Your task to perform on an android device: open app "Mercado Libre" Image 0: 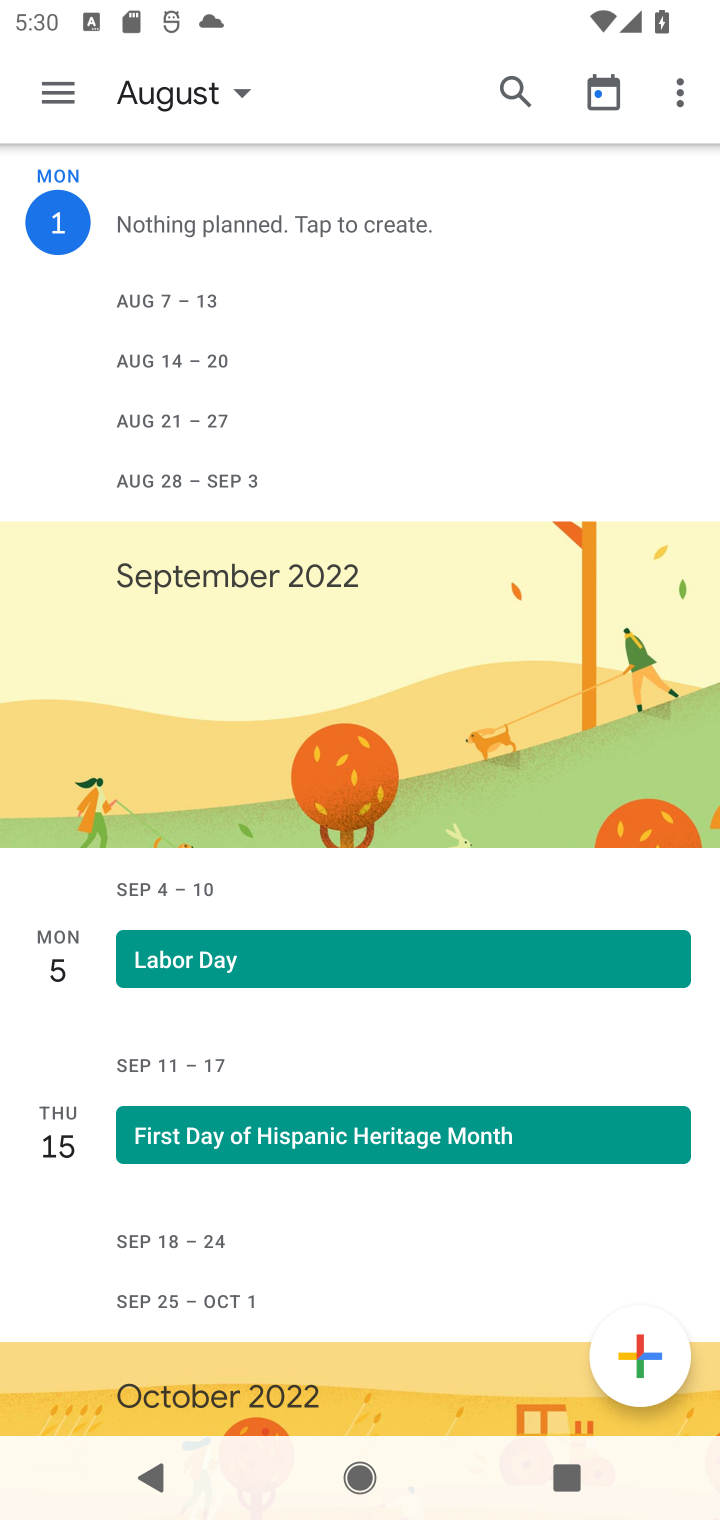
Step 0: press home button
Your task to perform on an android device: open app "Mercado Libre" Image 1: 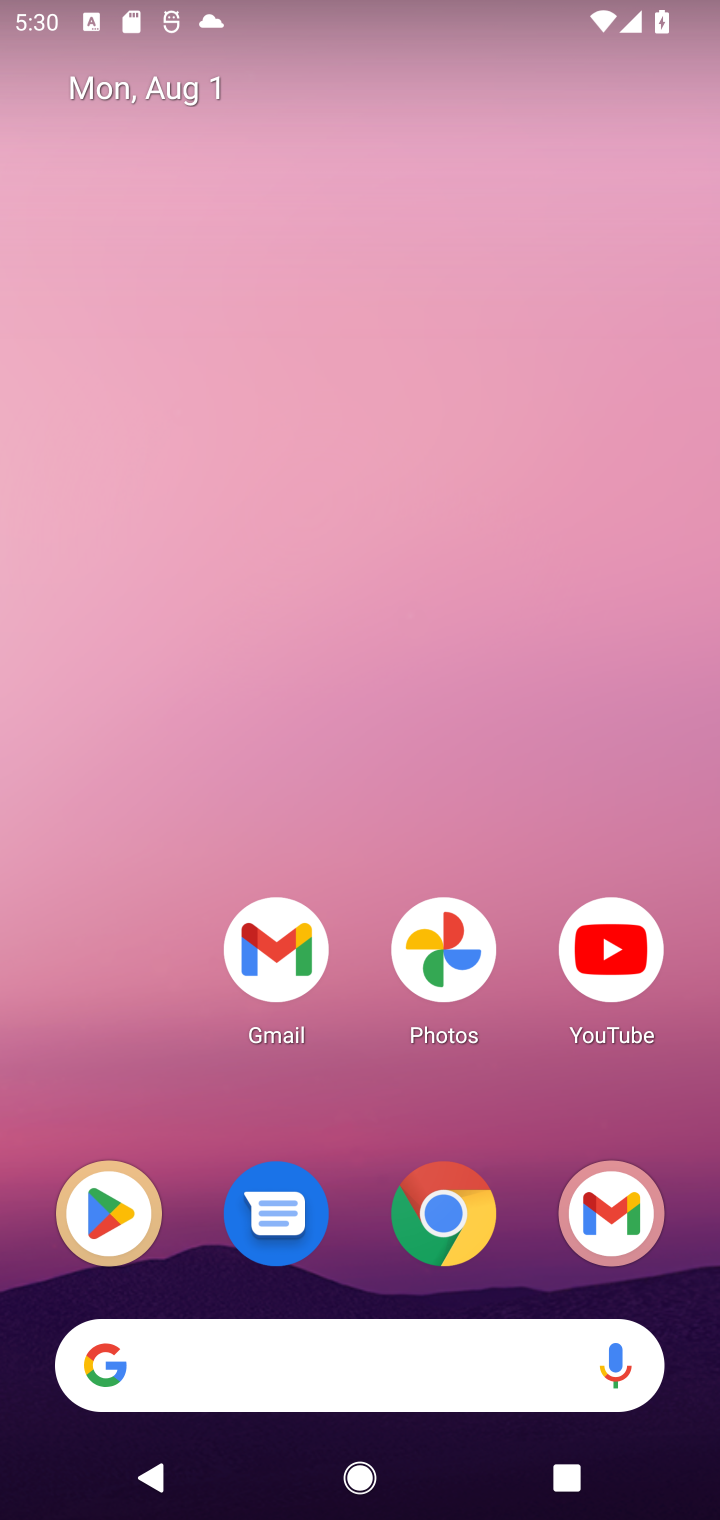
Step 1: drag from (516, 1125) to (565, 7)
Your task to perform on an android device: open app "Mercado Libre" Image 2: 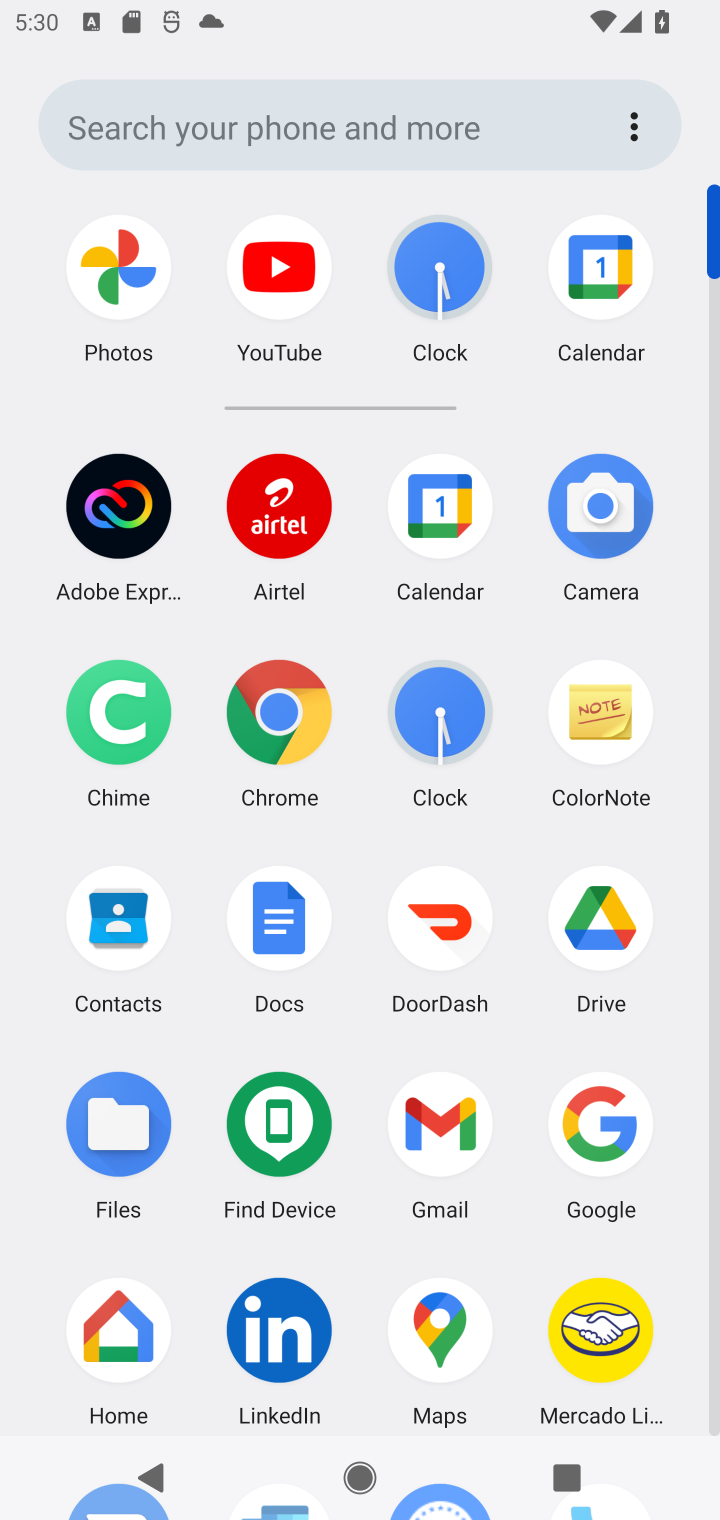
Step 2: drag from (514, 1220) to (607, 223)
Your task to perform on an android device: open app "Mercado Libre" Image 3: 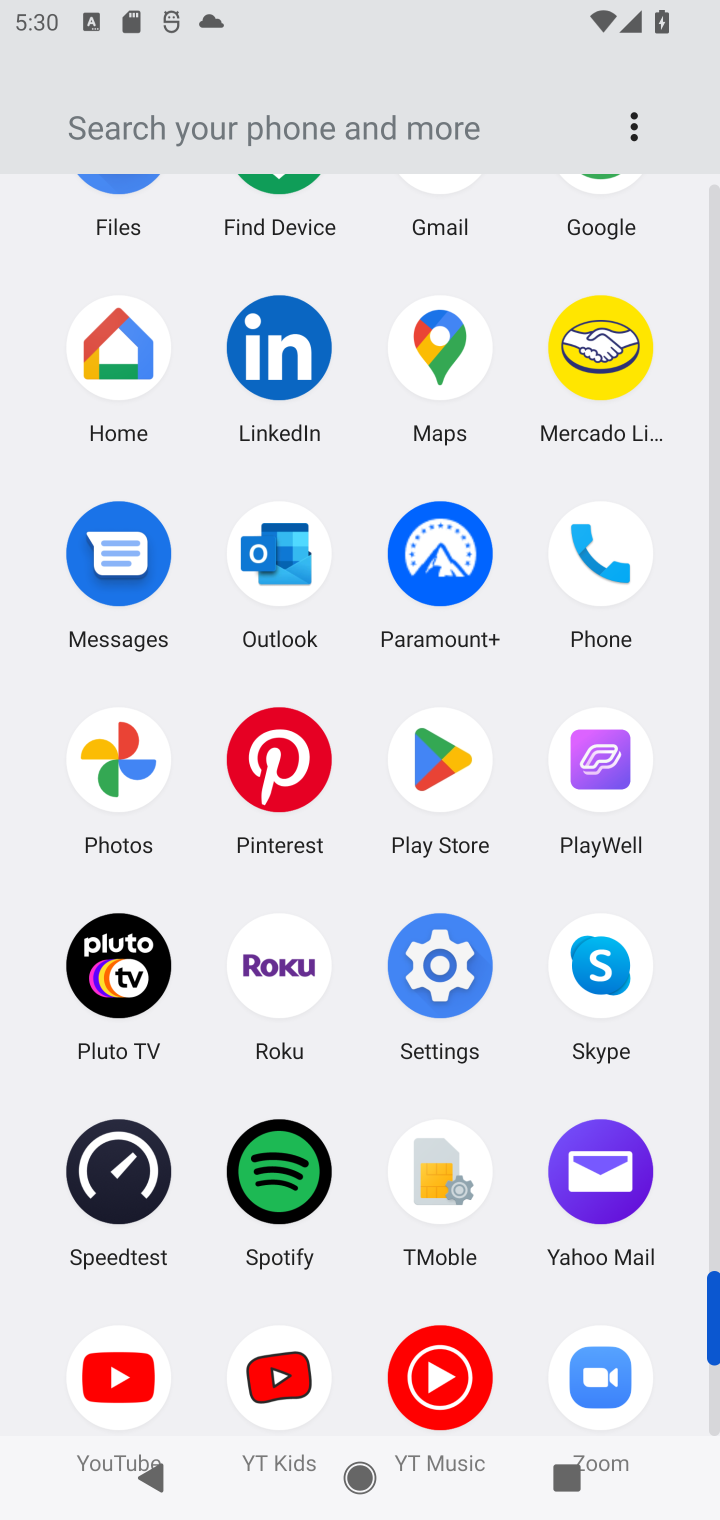
Step 3: click (454, 754)
Your task to perform on an android device: open app "Mercado Libre" Image 4: 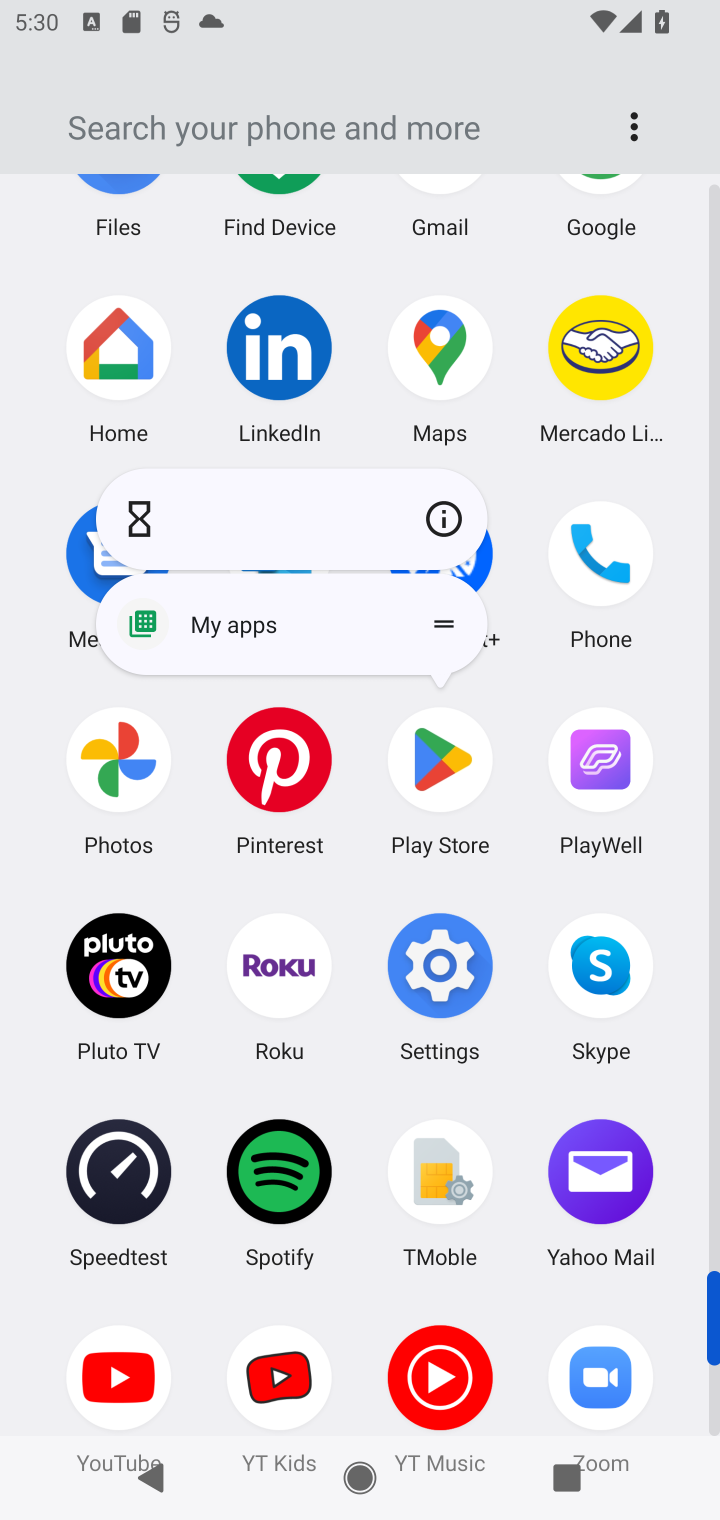
Step 4: click (447, 761)
Your task to perform on an android device: open app "Mercado Libre" Image 5: 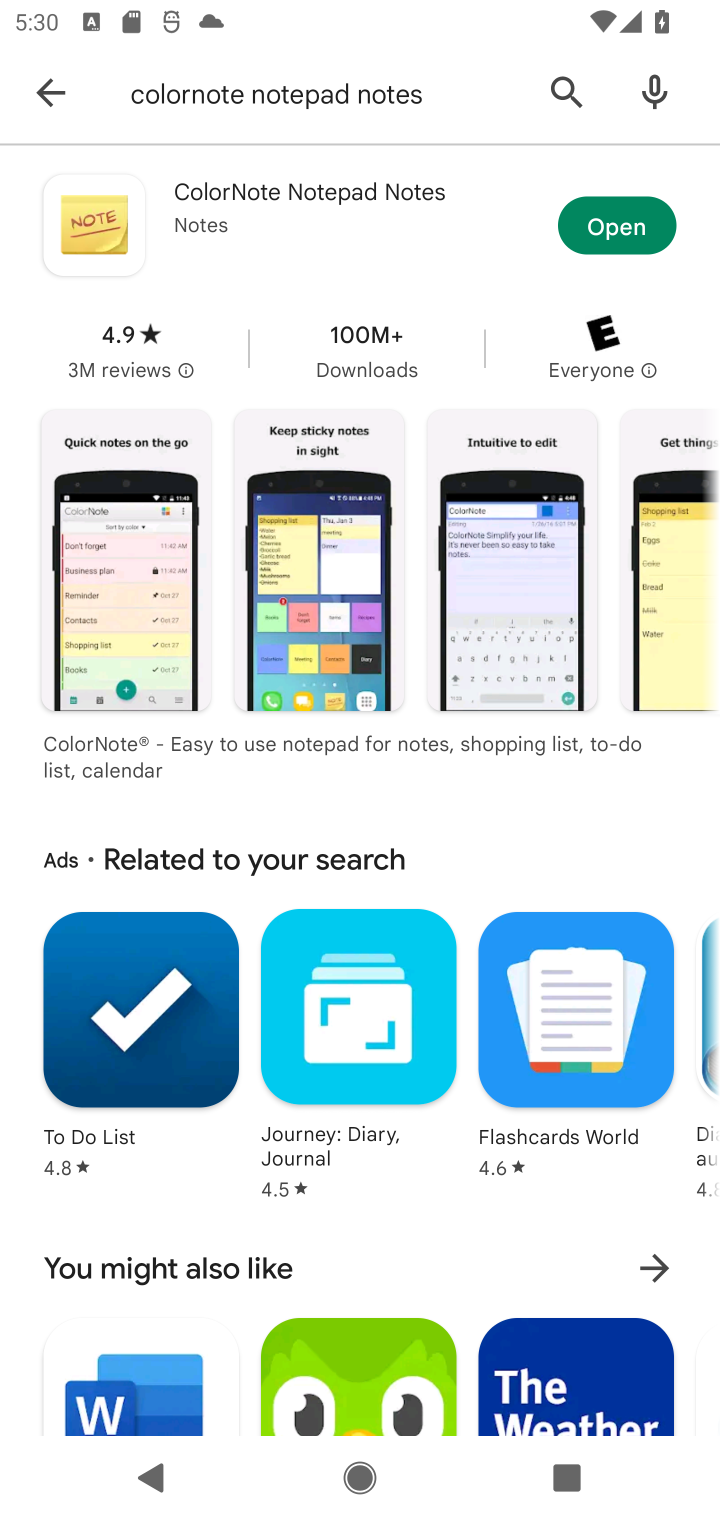
Step 5: click (467, 88)
Your task to perform on an android device: open app "Mercado Libre" Image 6: 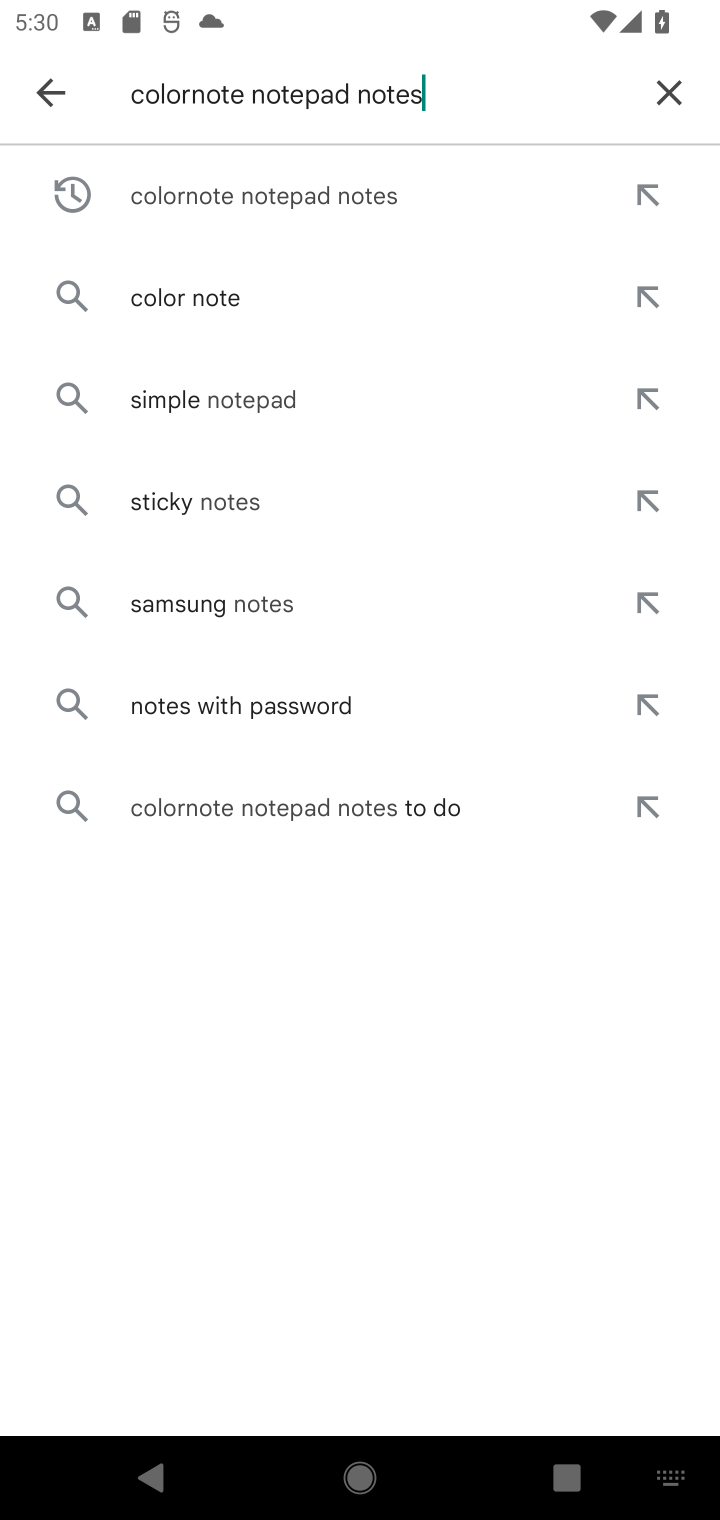
Step 6: click (679, 87)
Your task to perform on an android device: open app "Mercado Libre" Image 7: 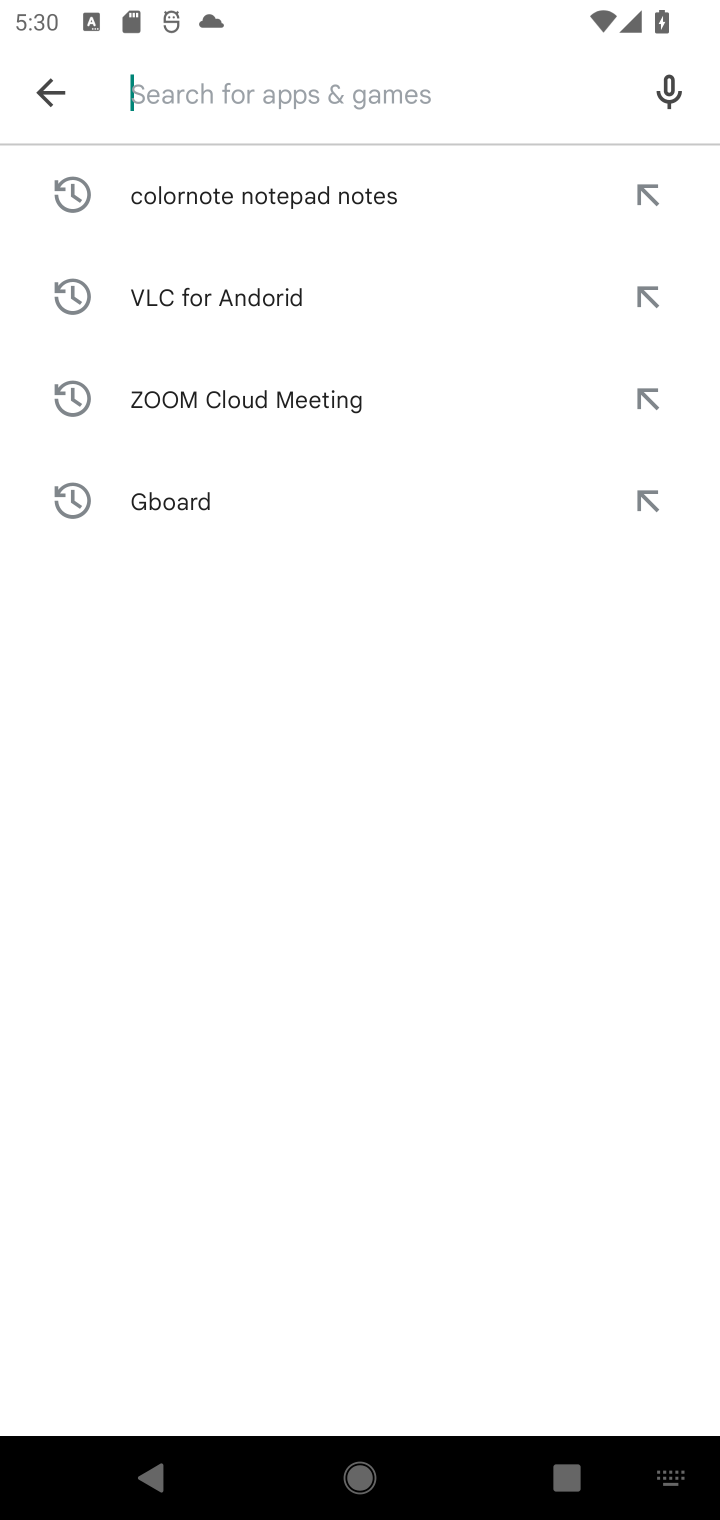
Step 7: type "Mercado Libre"
Your task to perform on an android device: open app "Mercado Libre" Image 8: 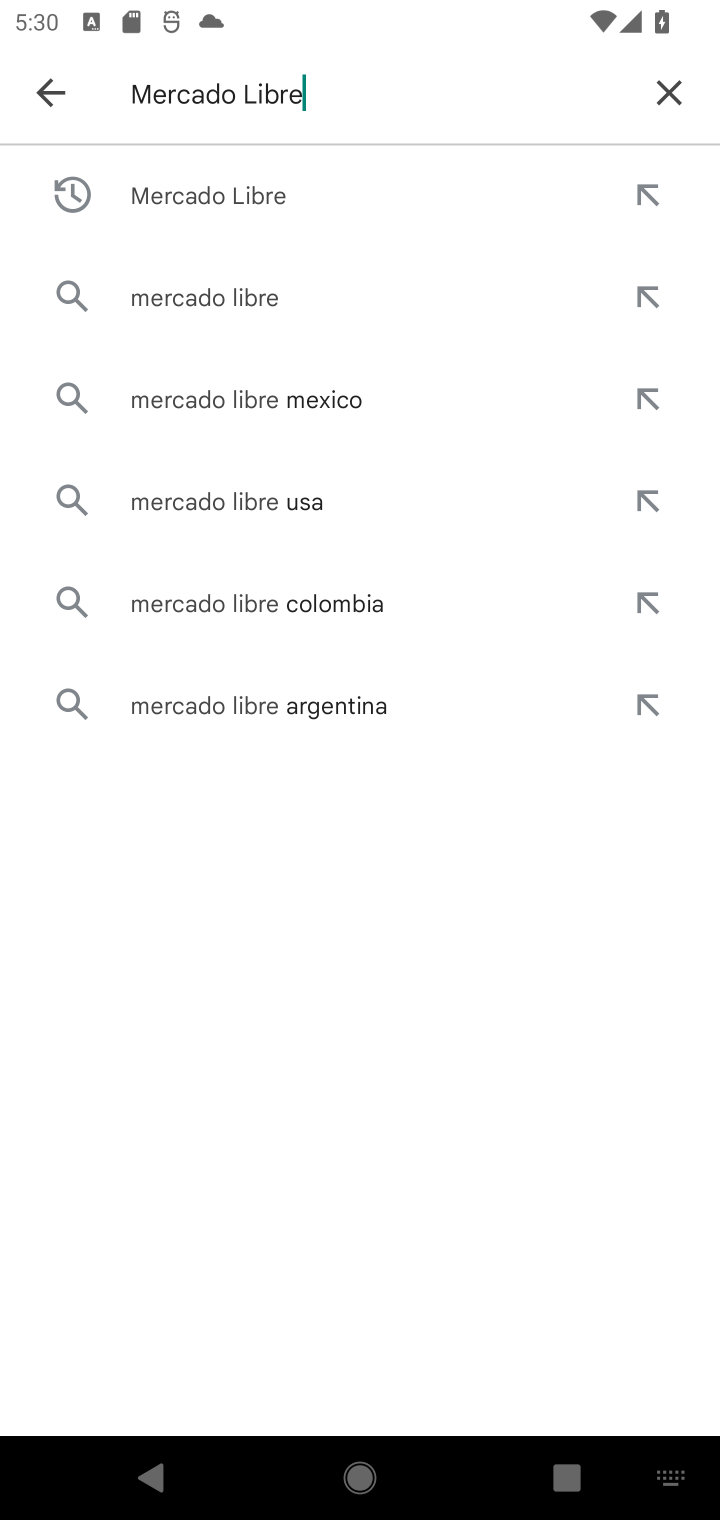
Step 8: press enter
Your task to perform on an android device: open app "Mercado Libre" Image 9: 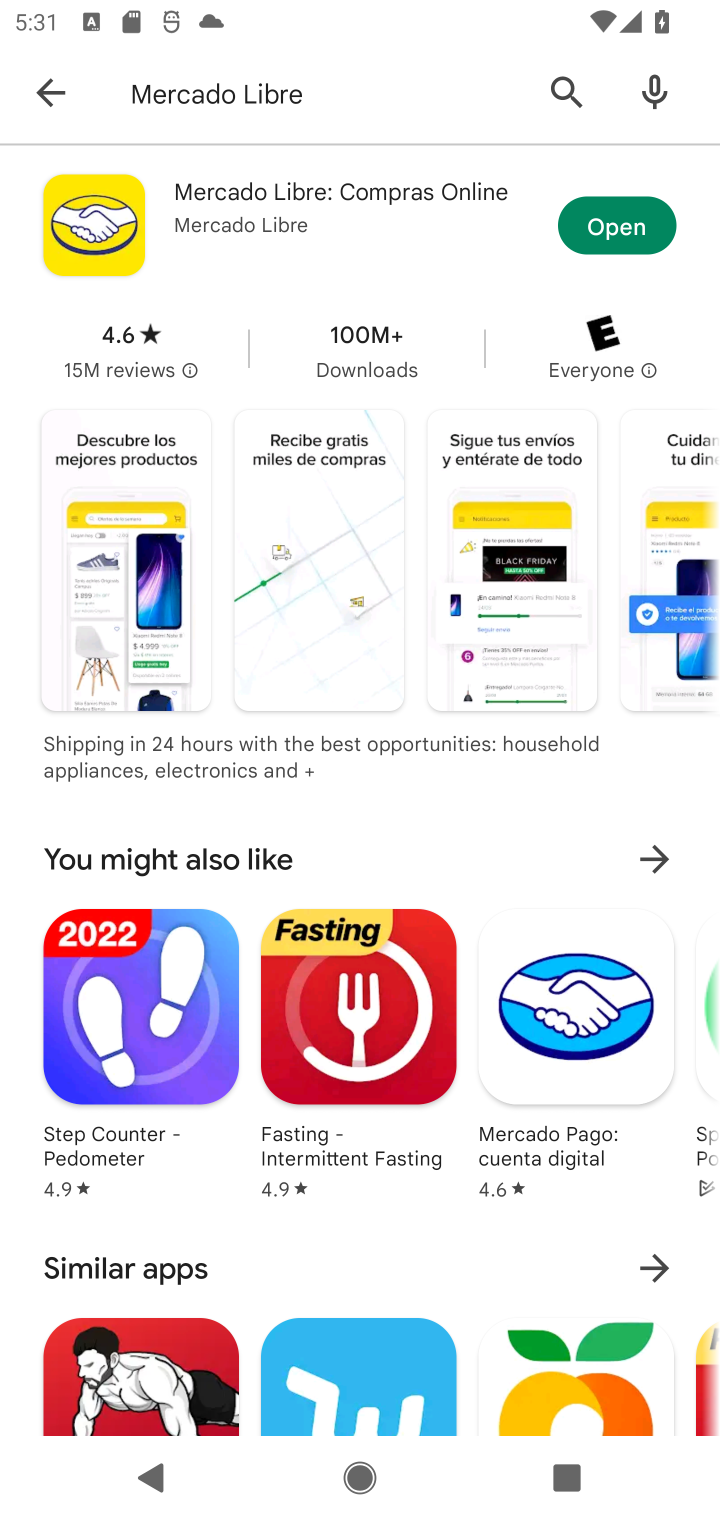
Step 9: click (610, 236)
Your task to perform on an android device: open app "Mercado Libre" Image 10: 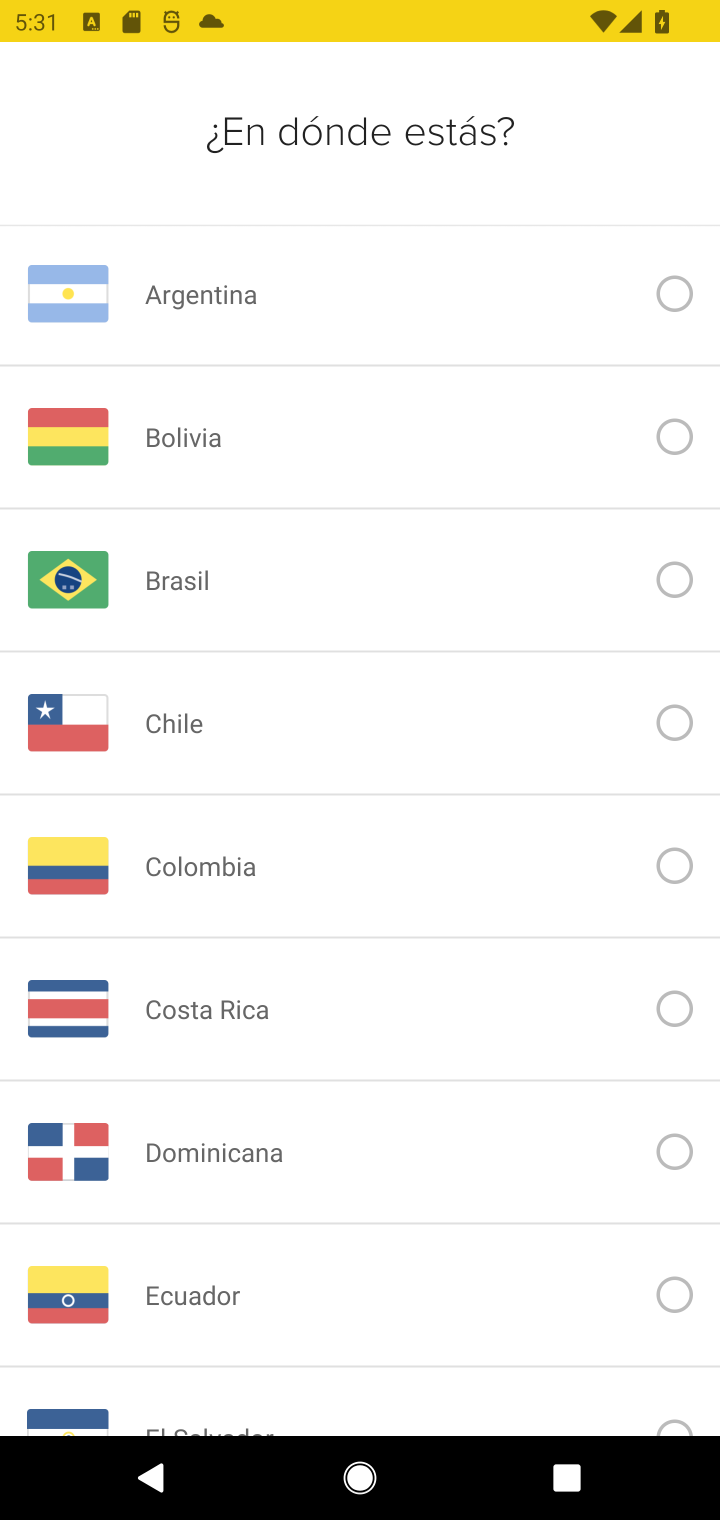
Step 10: task complete